Your task to perform on an android device: open chrome and create a bookmark for the current page Image 0: 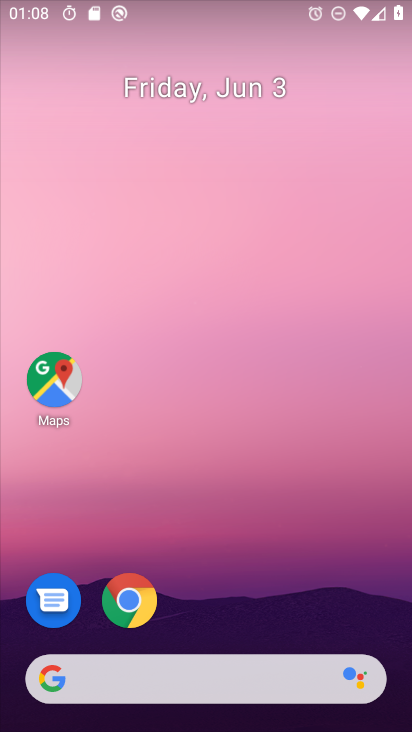
Step 0: click (131, 597)
Your task to perform on an android device: open chrome and create a bookmark for the current page Image 1: 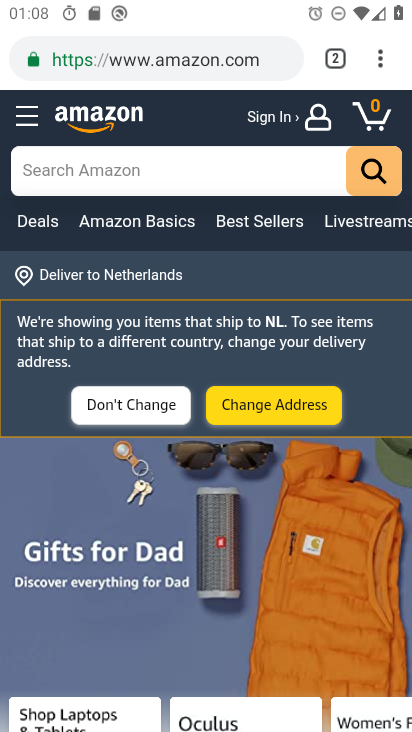
Step 1: click (375, 64)
Your task to perform on an android device: open chrome and create a bookmark for the current page Image 2: 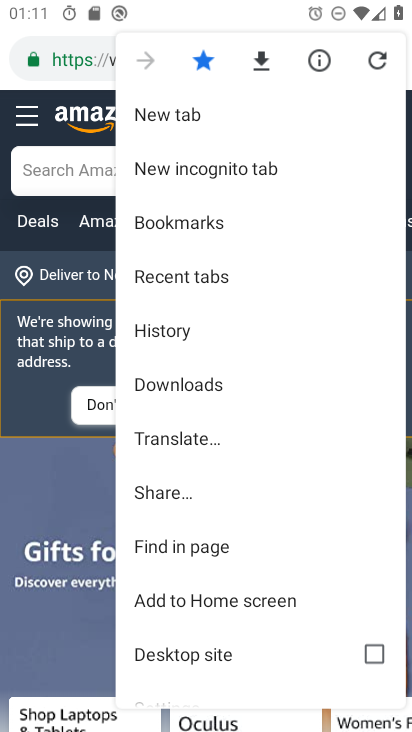
Step 2: task complete